Your task to perform on an android device: change timer sound Image 0: 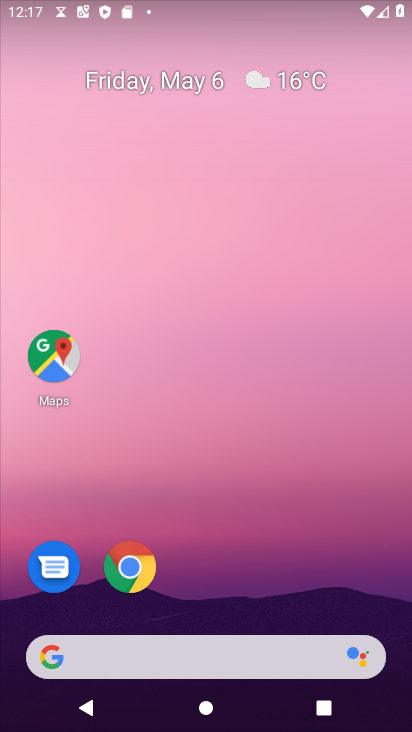
Step 0: drag from (268, 533) to (292, 72)
Your task to perform on an android device: change timer sound Image 1: 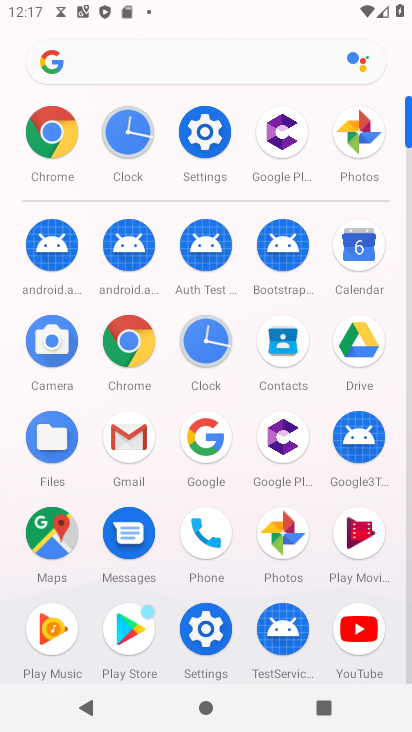
Step 1: click (127, 141)
Your task to perform on an android device: change timer sound Image 2: 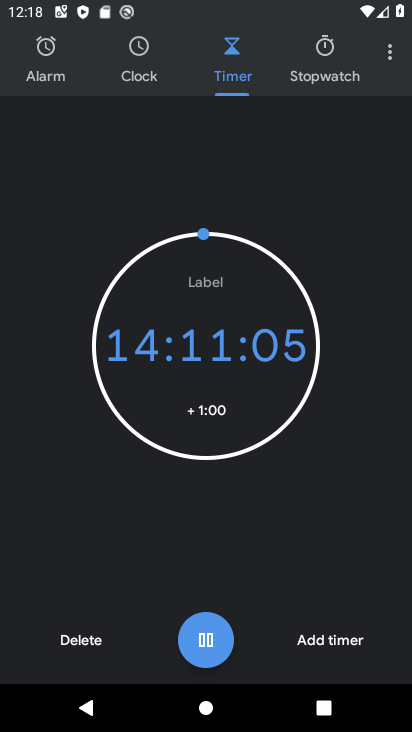
Step 2: click (385, 46)
Your task to perform on an android device: change timer sound Image 3: 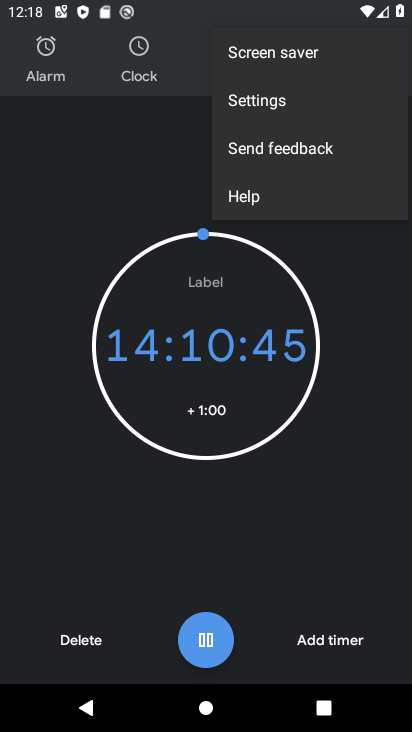
Step 3: click (244, 102)
Your task to perform on an android device: change timer sound Image 4: 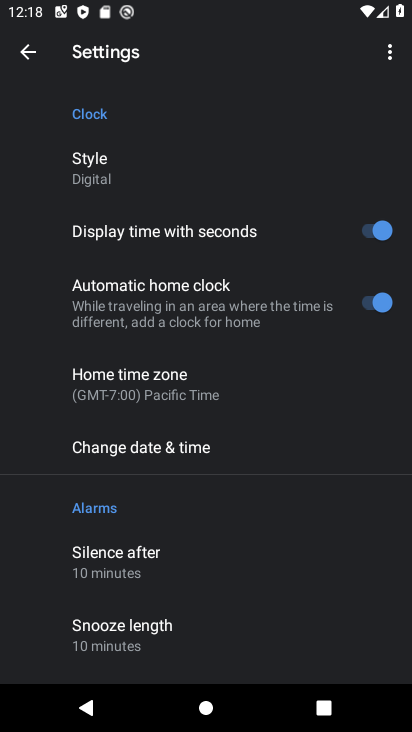
Step 4: drag from (211, 588) to (245, 200)
Your task to perform on an android device: change timer sound Image 5: 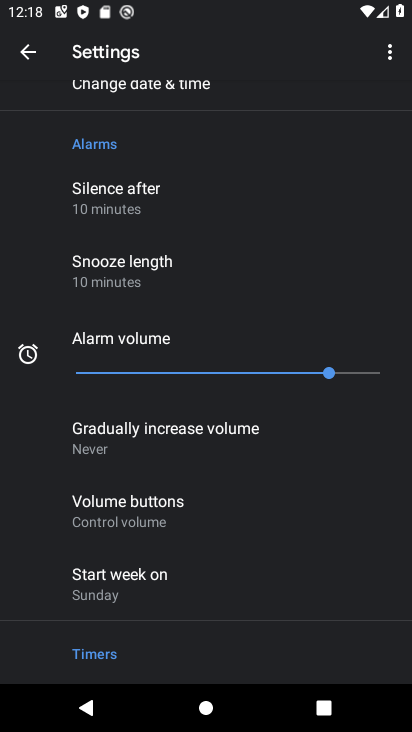
Step 5: drag from (184, 572) to (177, 253)
Your task to perform on an android device: change timer sound Image 6: 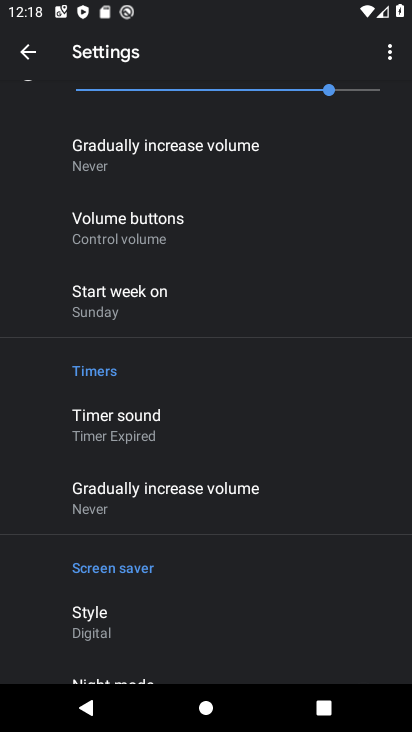
Step 6: click (112, 435)
Your task to perform on an android device: change timer sound Image 7: 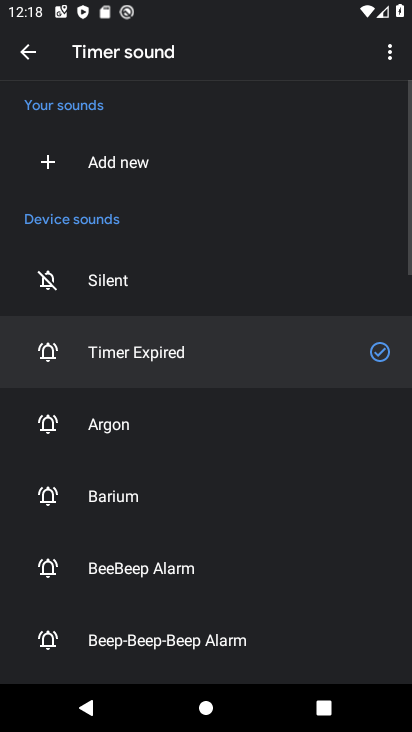
Step 7: click (112, 436)
Your task to perform on an android device: change timer sound Image 8: 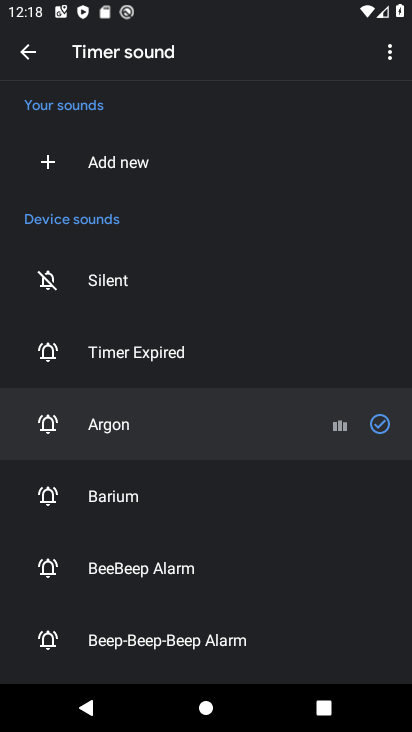
Step 8: task complete